Your task to perform on an android device: Open my contact list Image 0: 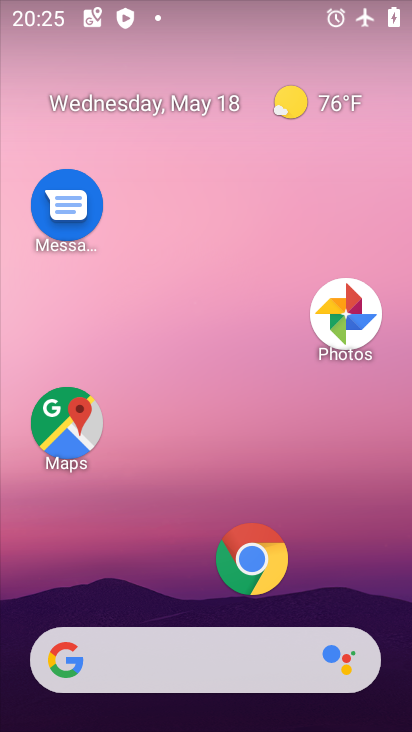
Step 0: drag from (244, 655) to (211, 41)
Your task to perform on an android device: Open my contact list Image 1: 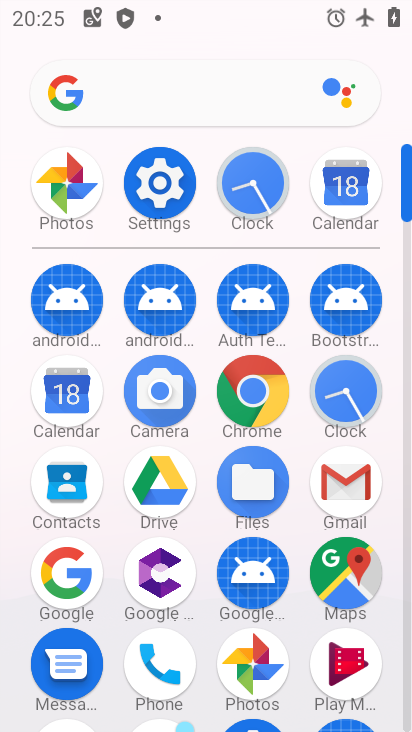
Step 1: click (171, 664)
Your task to perform on an android device: Open my contact list Image 2: 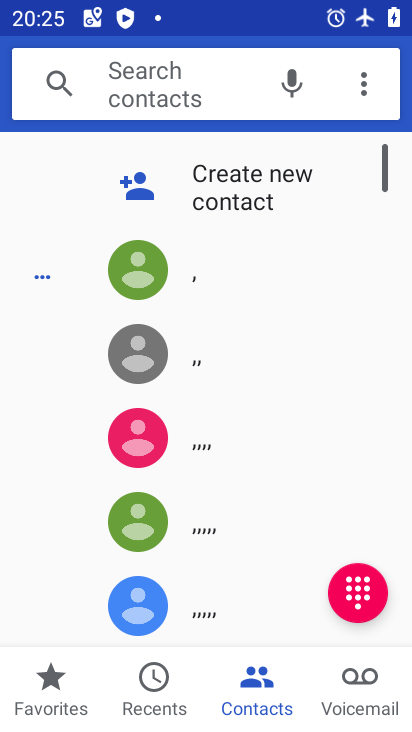
Step 2: click (249, 680)
Your task to perform on an android device: Open my contact list Image 3: 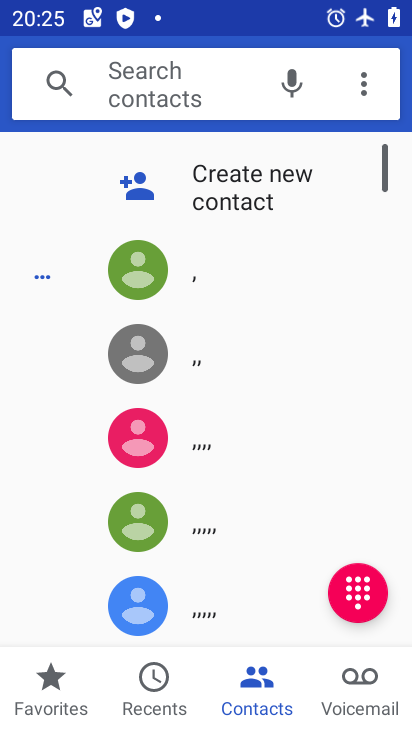
Step 3: task complete